Your task to perform on an android device: Go to eBay Image 0: 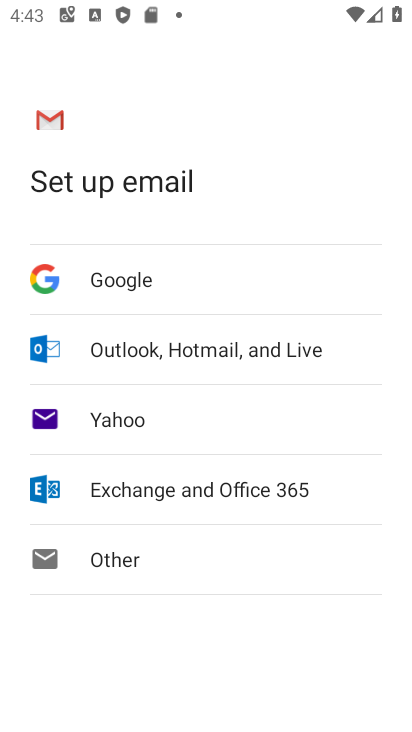
Step 0: press home button
Your task to perform on an android device: Go to eBay Image 1: 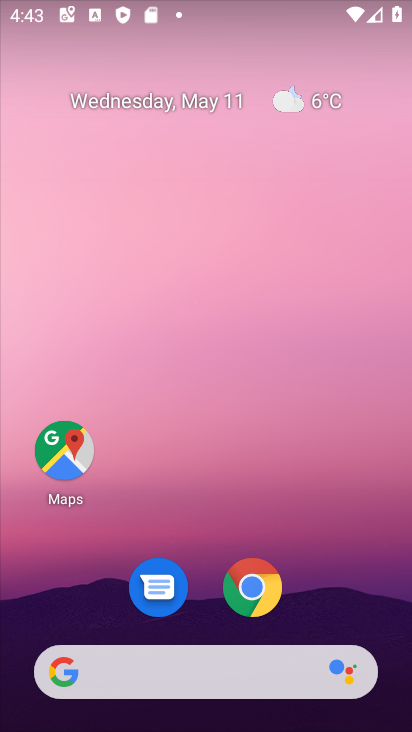
Step 1: click (135, 681)
Your task to perform on an android device: Go to eBay Image 2: 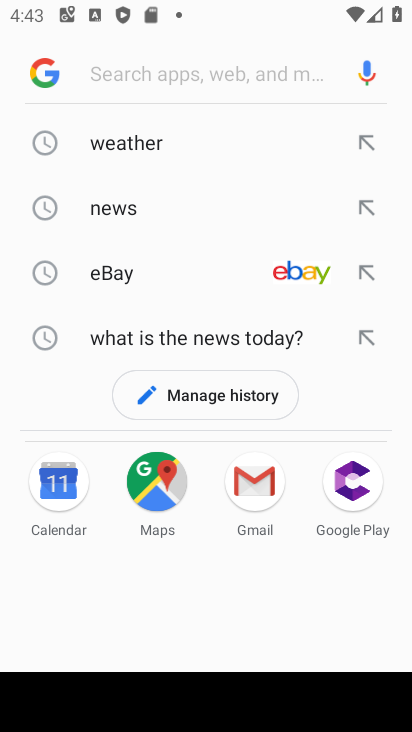
Step 2: click (173, 272)
Your task to perform on an android device: Go to eBay Image 3: 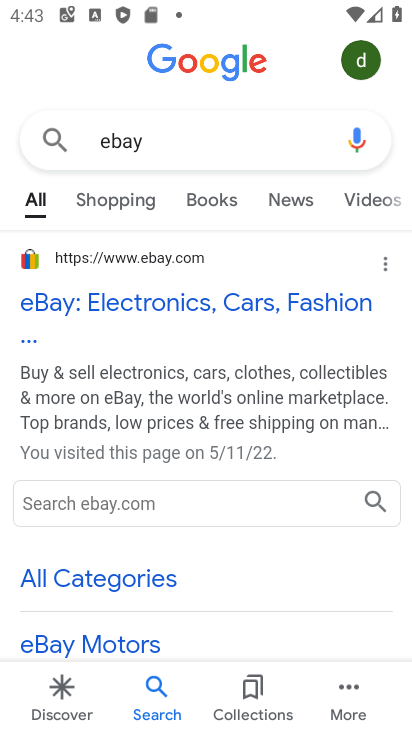
Step 3: click (171, 294)
Your task to perform on an android device: Go to eBay Image 4: 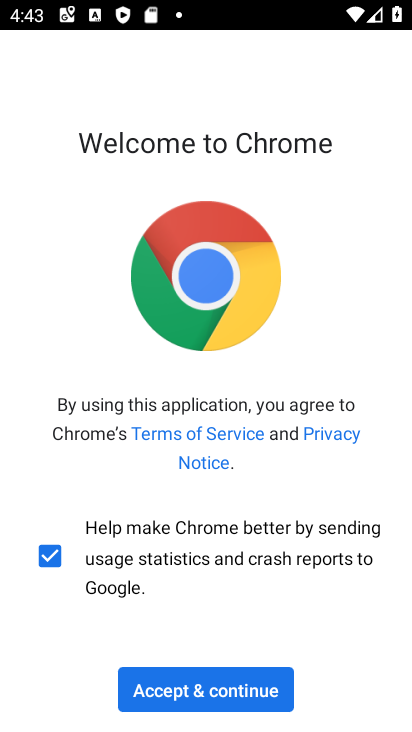
Step 4: click (172, 692)
Your task to perform on an android device: Go to eBay Image 5: 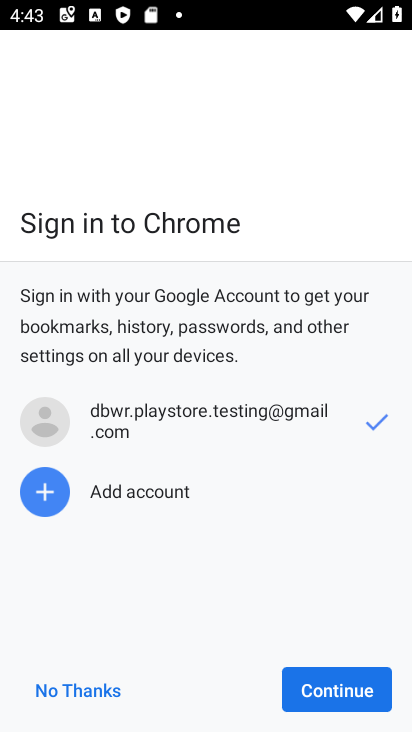
Step 5: click (299, 682)
Your task to perform on an android device: Go to eBay Image 6: 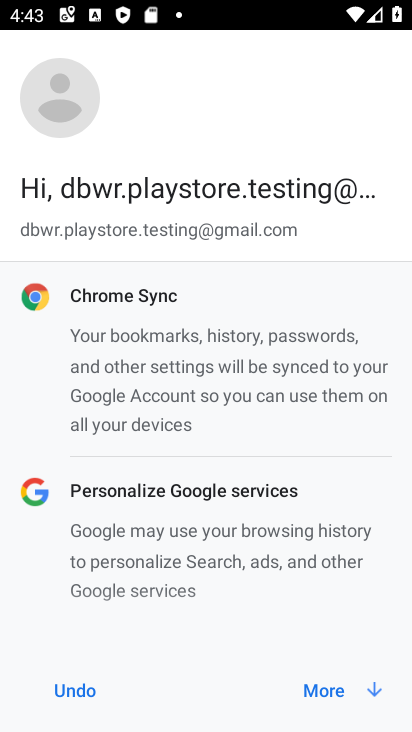
Step 6: click (295, 662)
Your task to perform on an android device: Go to eBay Image 7: 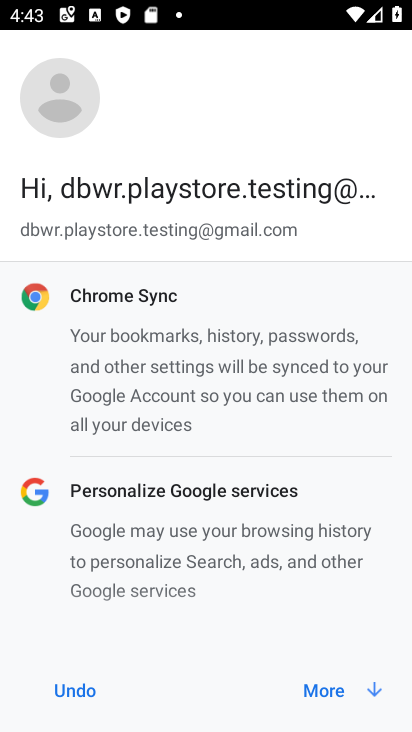
Step 7: click (341, 678)
Your task to perform on an android device: Go to eBay Image 8: 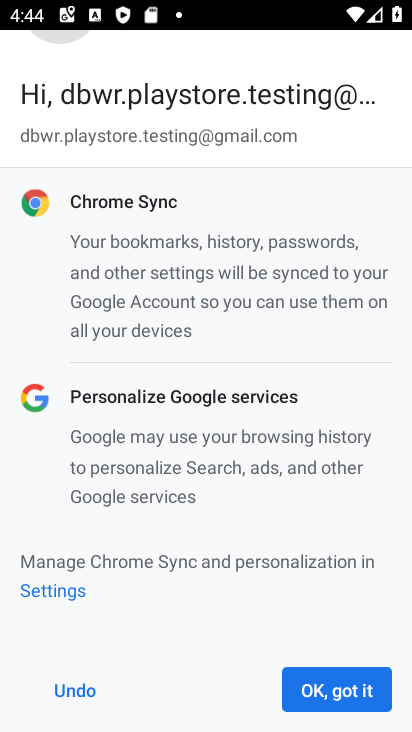
Step 8: click (368, 683)
Your task to perform on an android device: Go to eBay Image 9: 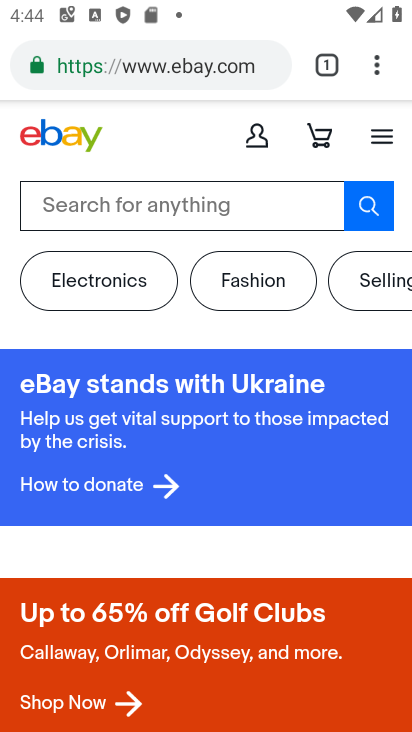
Step 9: task complete